Your task to perform on an android device: Open the calendar and show me this week's events? Image 0: 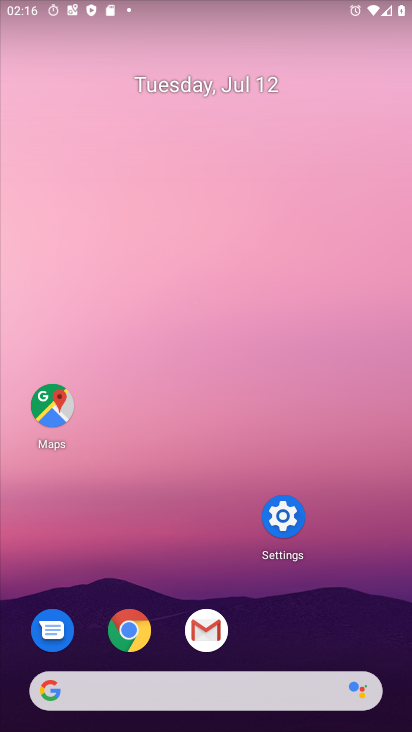
Step 0: drag from (293, 723) to (184, 293)
Your task to perform on an android device: Open the calendar and show me this week's events? Image 1: 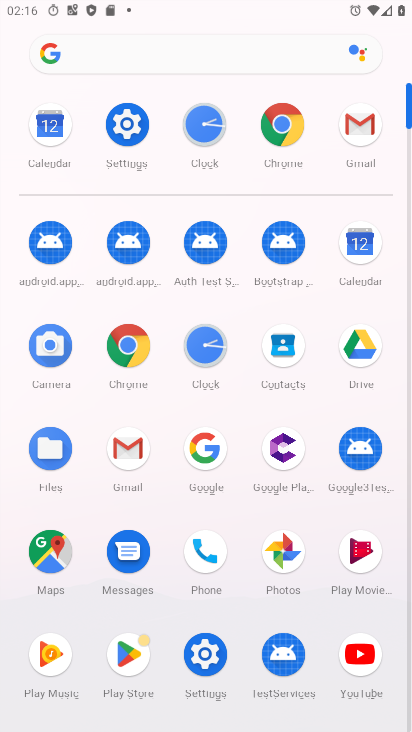
Step 1: click (342, 259)
Your task to perform on an android device: Open the calendar and show me this week's events? Image 2: 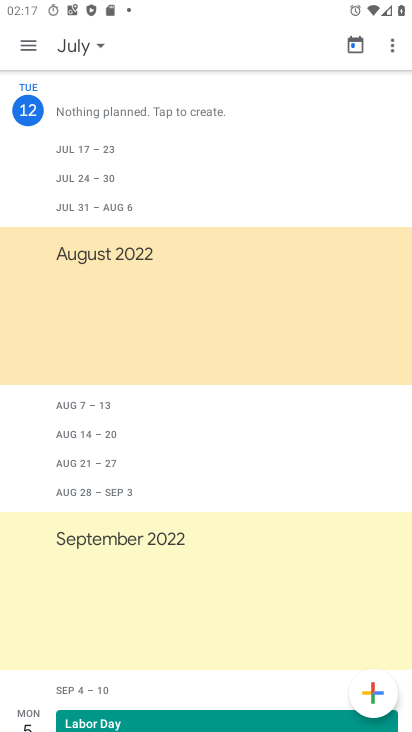
Step 2: click (22, 54)
Your task to perform on an android device: Open the calendar and show me this week's events? Image 3: 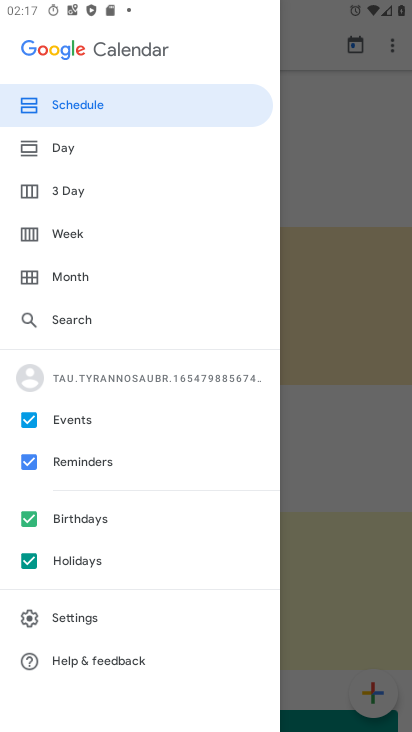
Step 3: click (69, 236)
Your task to perform on an android device: Open the calendar and show me this week's events? Image 4: 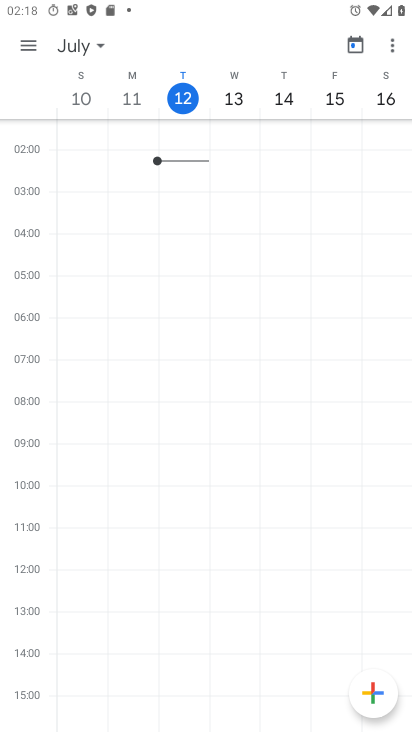
Step 4: task complete